Your task to perform on an android device: create a new album in the google photos Image 0: 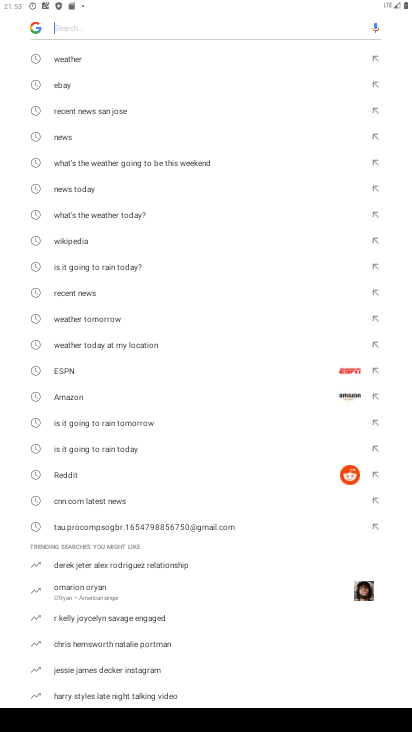
Step 0: press home button
Your task to perform on an android device: create a new album in the google photos Image 1: 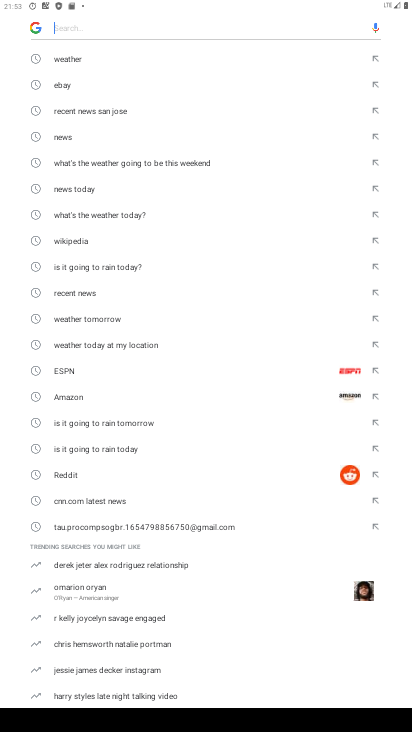
Step 1: press home button
Your task to perform on an android device: create a new album in the google photos Image 2: 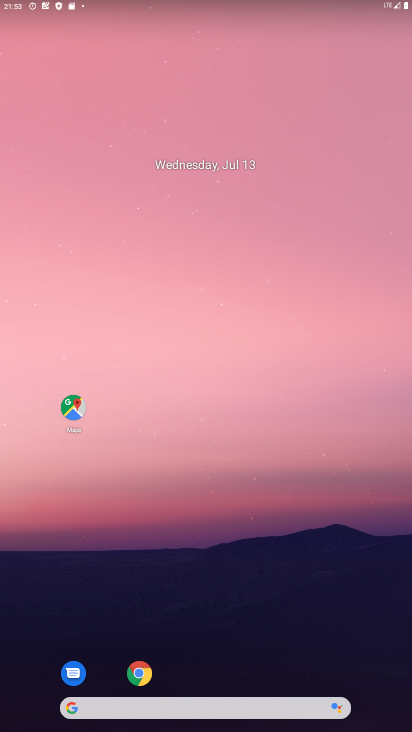
Step 2: drag from (187, 568) to (196, 192)
Your task to perform on an android device: create a new album in the google photos Image 3: 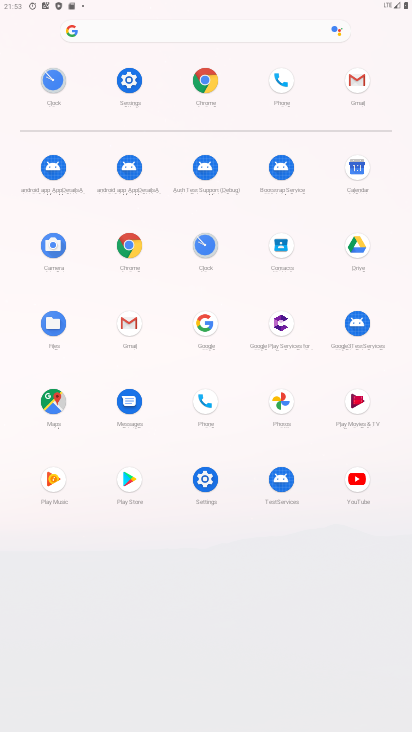
Step 3: click (277, 402)
Your task to perform on an android device: create a new album in the google photos Image 4: 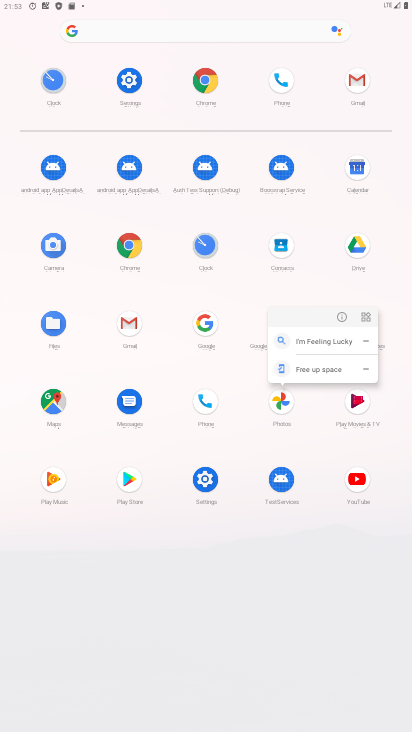
Step 4: click (340, 313)
Your task to perform on an android device: create a new album in the google photos Image 5: 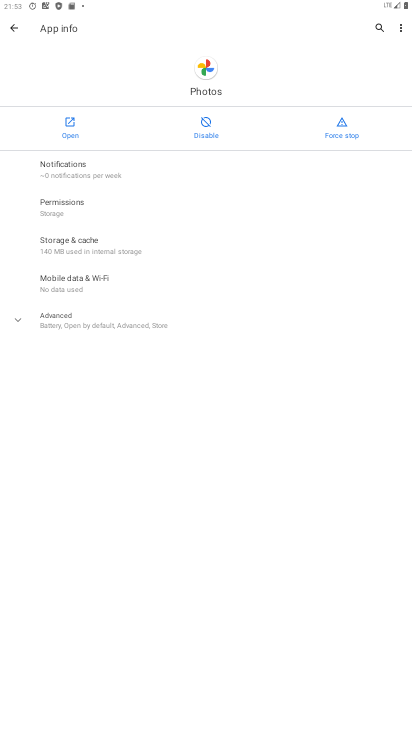
Step 5: click (74, 129)
Your task to perform on an android device: create a new album in the google photos Image 6: 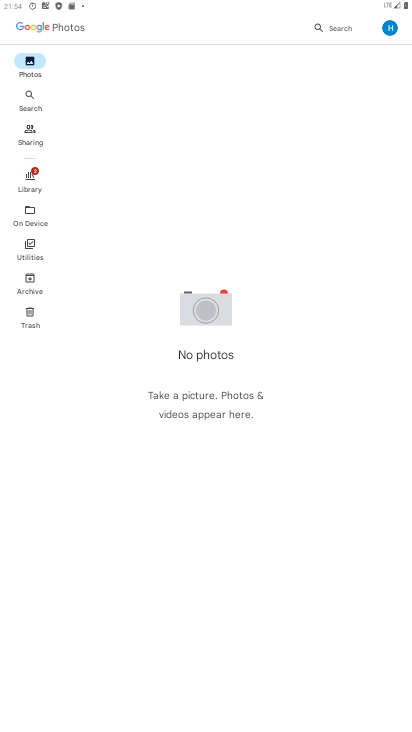
Step 6: click (38, 68)
Your task to perform on an android device: create a new album in the google photos Image 7: 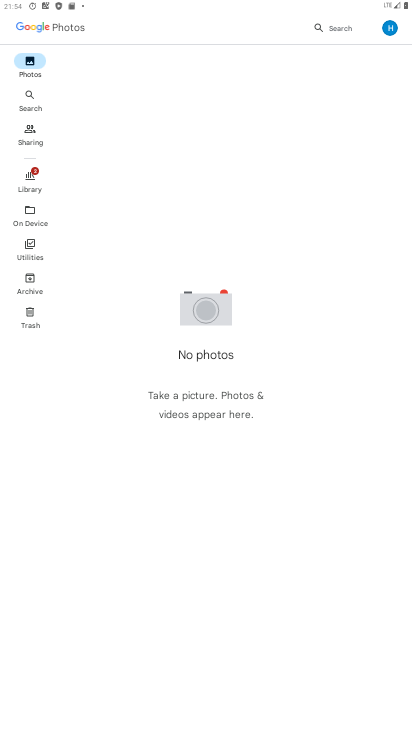
Step 7: click (27, 48)
Your task to perform on an android device: create a new album in the google photos Image 8: 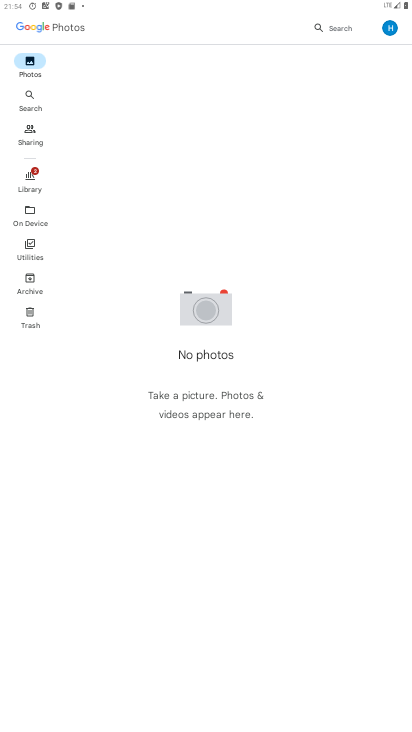
Step 8: click (30, 56)
Your task to perform on an android device: create a new album in the google photos Image 9: 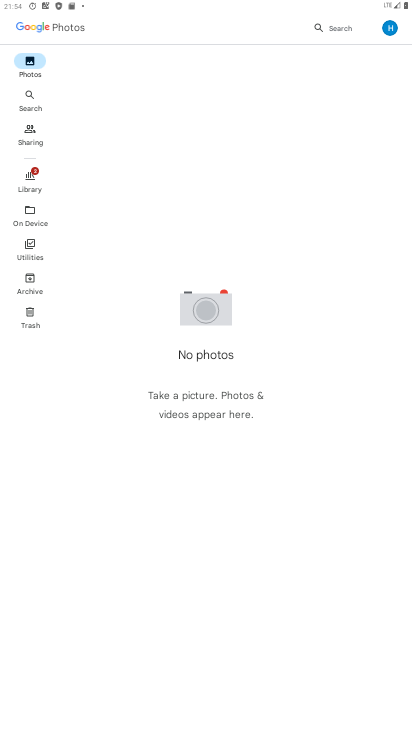
Step 9: click (272, 620)
Your task to perform on an android device: create a new album in the google photos Image 10: 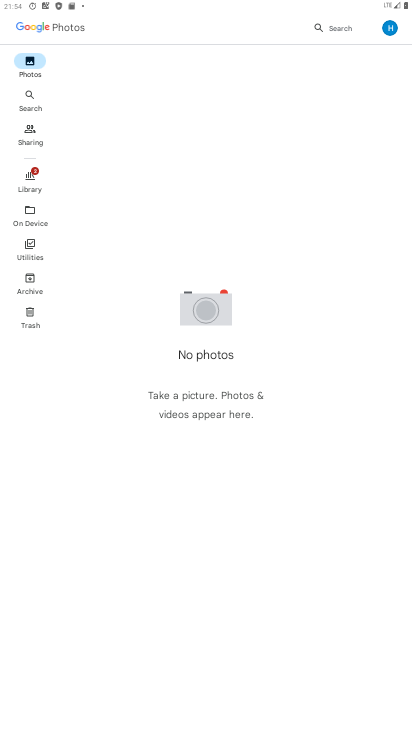
Step 10: click (27, 133)
Your task to perform on an android device: create a new album in the google photos Image 11: 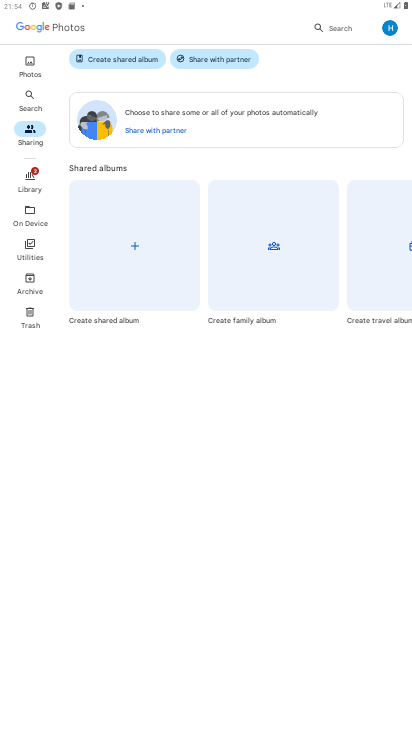
Step 11: click (29, 221)
Your task to perform on an android device: create a new album in the google photos Image 12: 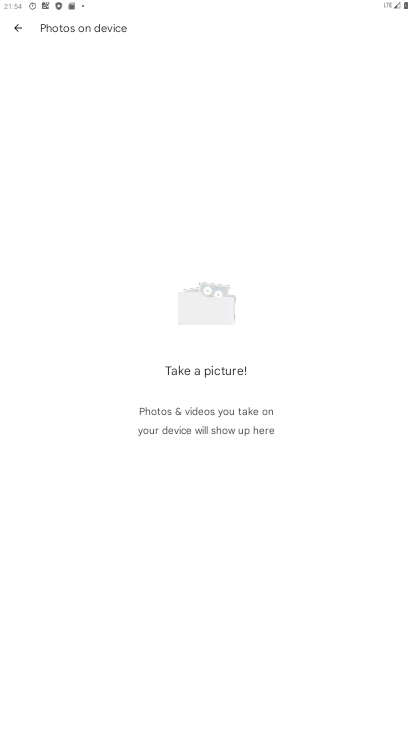
Step 12: click (18, 19)
Your task to perform on an android device: create a new album in the google photos Image 13: 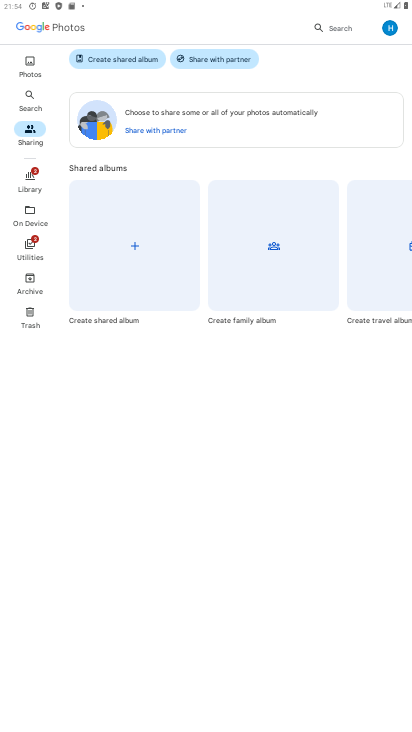
Step 13: click (30, 182)
Your task to perform on an android device: create a new album in the google photos Image 14: 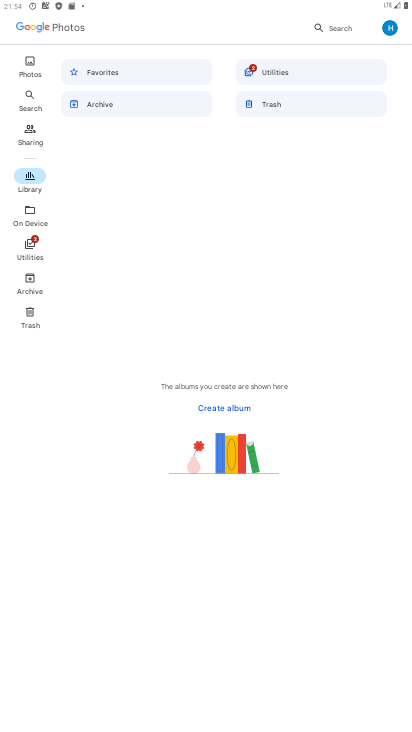
Step 14: click (31, 131)
Your task to perform on an android device: create a new album in the google photos Image 15: 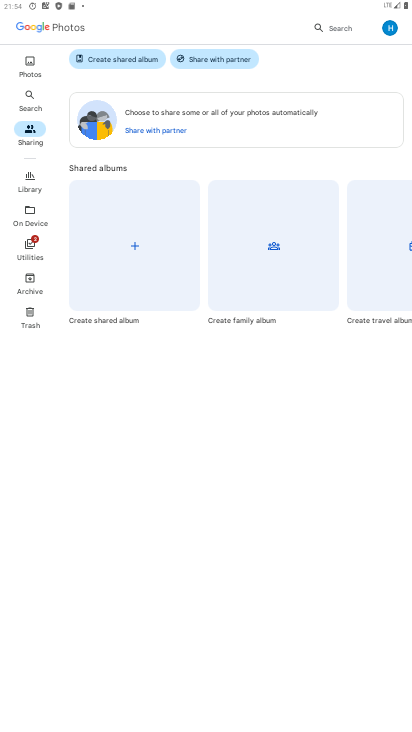
Step 15: click (29, 209)
Your task to perform on an android device: create a new album in the google photos Image 16: 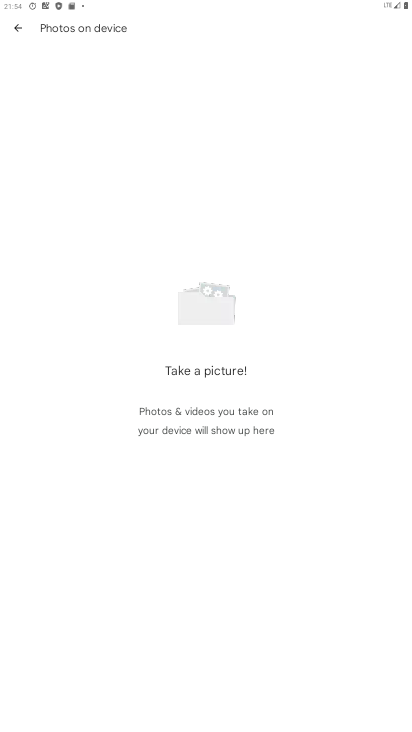
Step 16: click (24, 29)
Your task to perform on an android device: create a new album in the google photos Image 17: 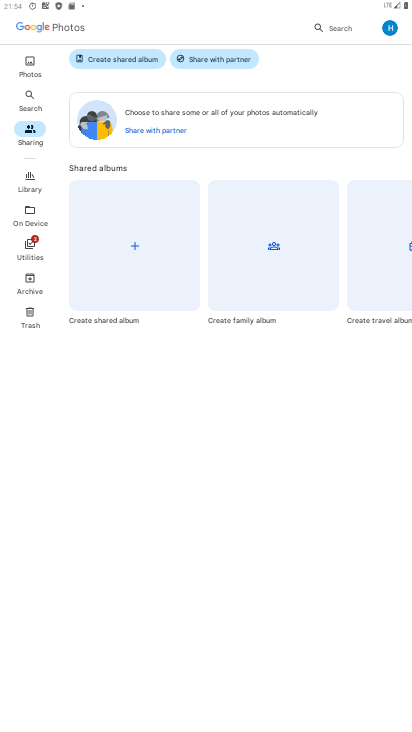
Step 17: click (99, 65)
Your task to perform on an android device: create a new album in the google photos Image 18: 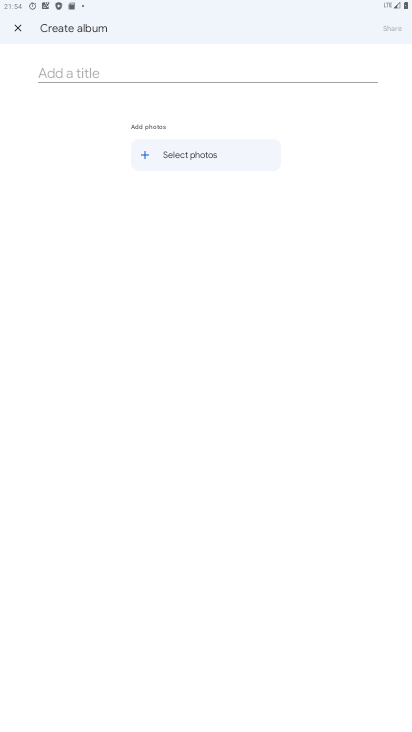
Step 18: click (23, 30)
Your task to perform on an android device: create a new album in the google photos Image 19: 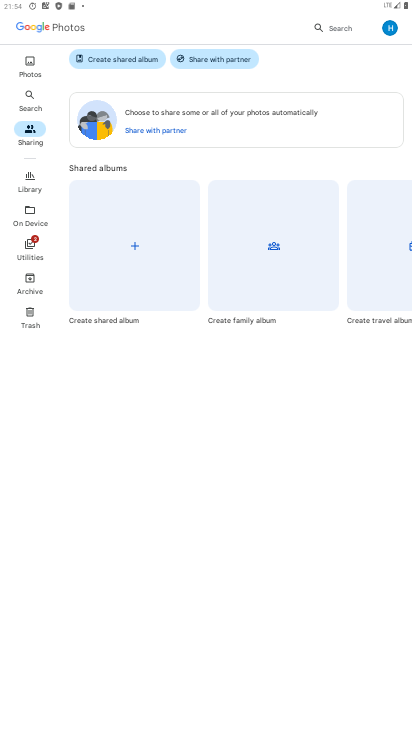
Step 19: click (140, 244)
Your task to perform on an android device: create a new album in the google photos Image 20: 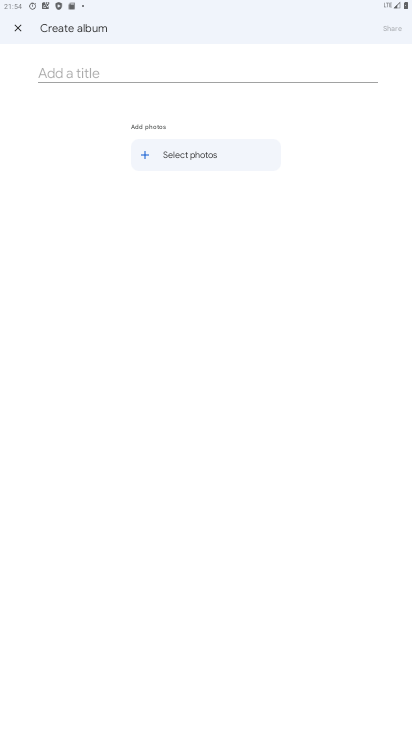
Step 20: click (128, 66)
Your task to perform on an android device: create a new album in the google photos Image 21: 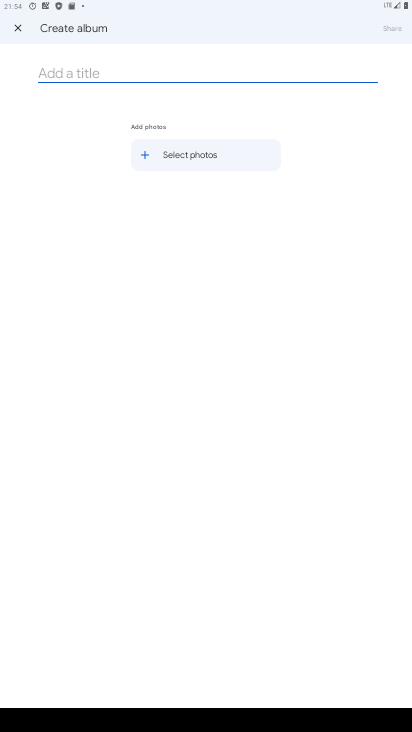
Step 21: type "fgvgt"
Your task to perform on an android device: create a new album in the google photos Image 22: 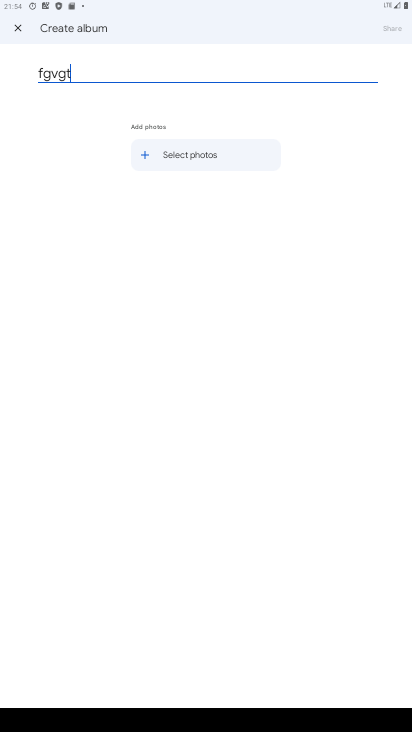
Step 22: click (161, 166)
Your task to perform on an android device: create a new album in the google photos Image 23: 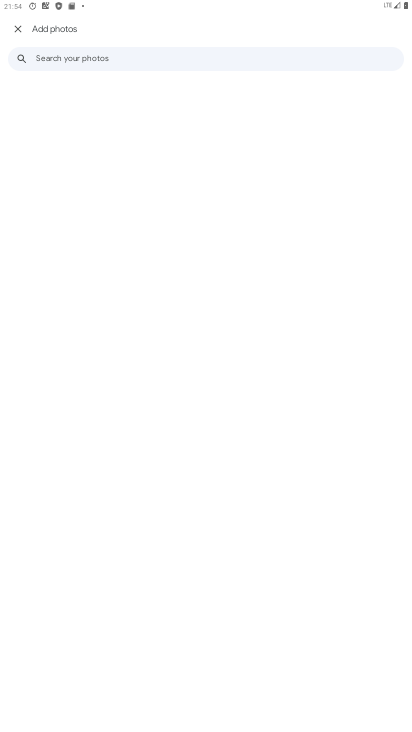
Step 23: click (70, 60)
Your task to perform on an android device: create a new album in the google photos Image 24: 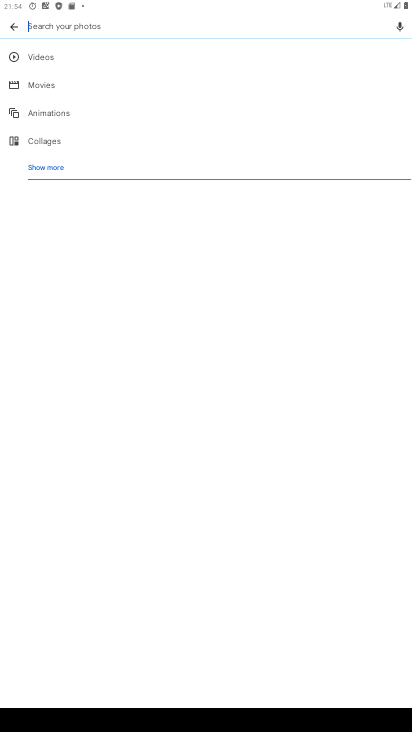
Step 24: click (18, 23)
Your task to perform on an android device: create a new album in the google photos Image 25: 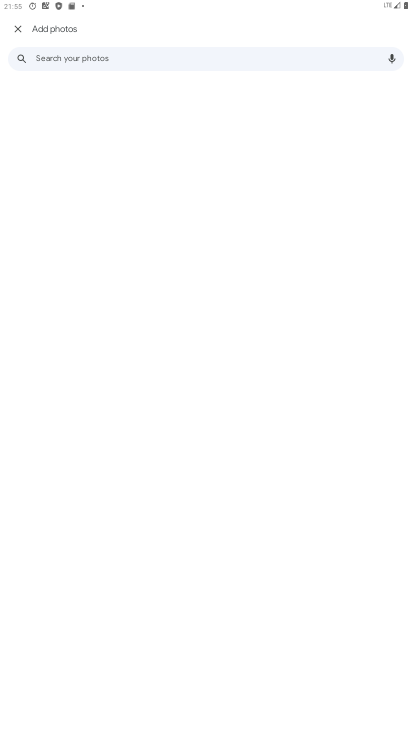
Step 25: task complete